Your task to perform on an android device: turn notification dots off Image 0: 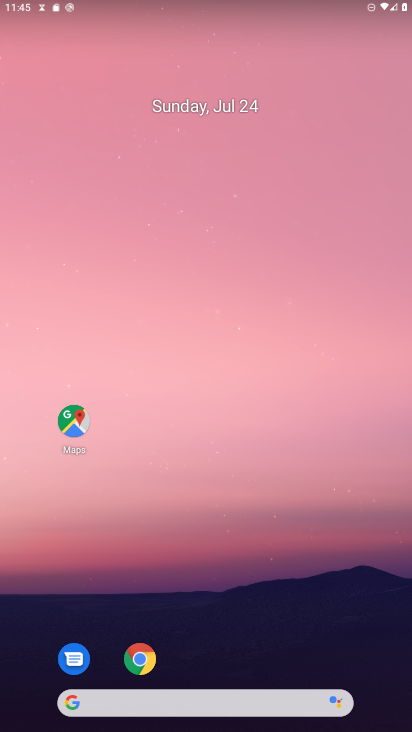
Step 0: drag from (248, 652) to (248, 44)
Your task to perform on an android device: turn notification dots off Image 1: 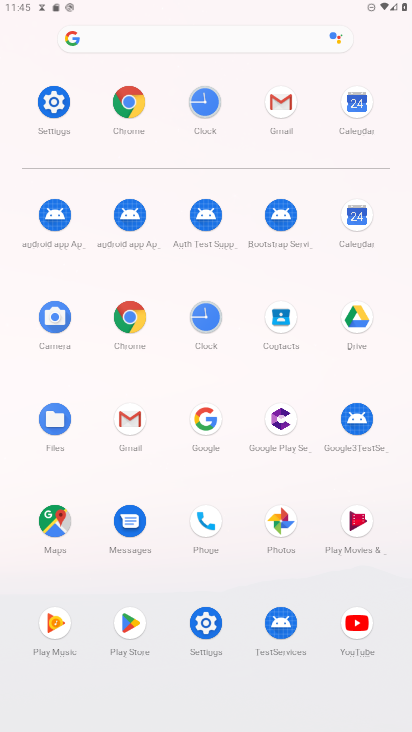
Step 1: click (46, 129)
Your task to perform on an android device: turn notification dots off Image 2: 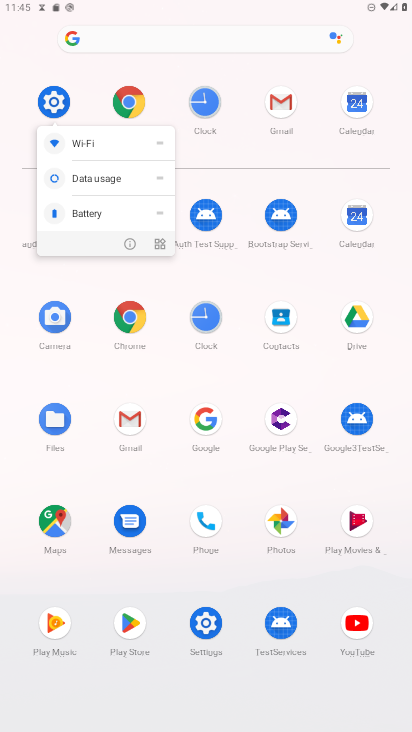
Step 2: click (52, 108)
Your task to perform on an android device: turn notification dots off Image 3: 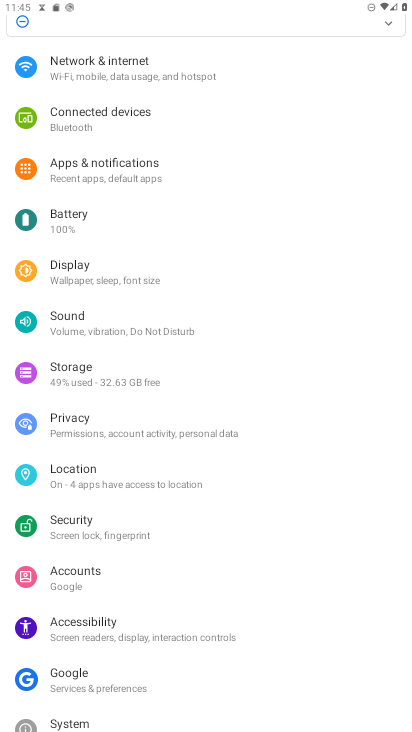
Step 3: click (52, 108)
Your task to perform on an android device: turn notification dots off Image 4: 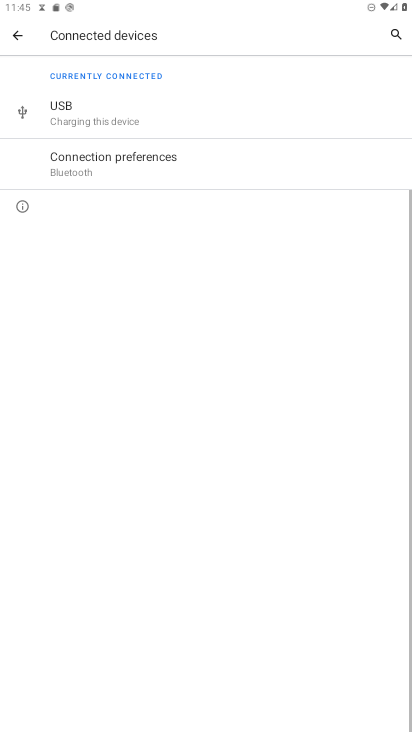
Step 4: click (24, 32)
Your task to perform on an android device: turn notification dots off Image 5: 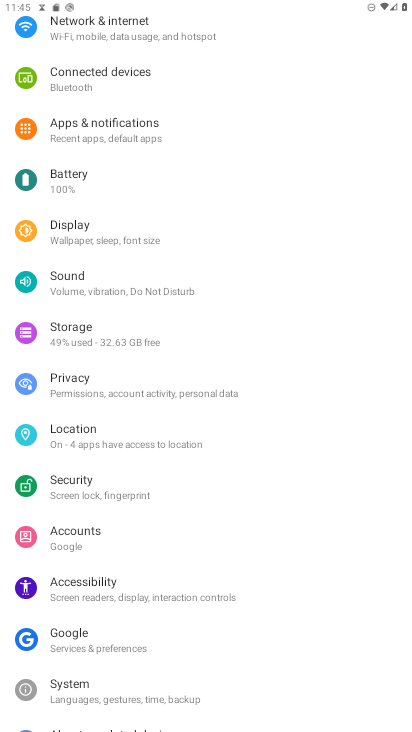
Step 5: drag from (182, 47) to (179, 388)
Your task to perform on an android device: turn notification dots off Image 6: 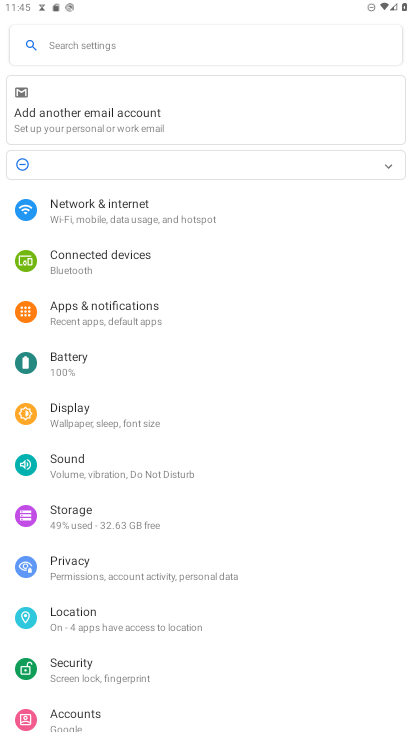
Step 6: click (117, 32)
Your task to perform on an android device: turn notification dots off Image 7: 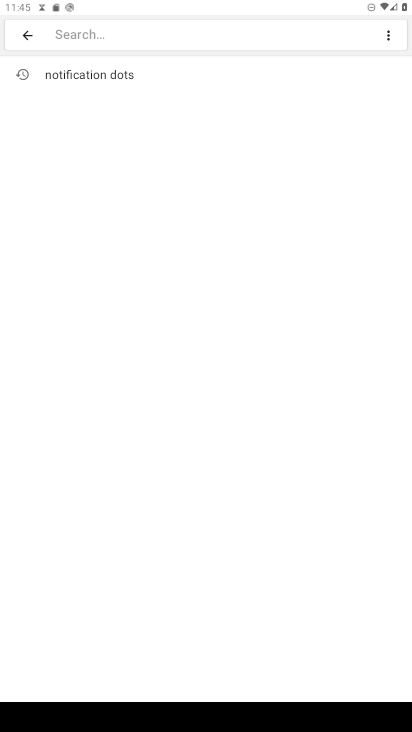
Step 7: click (103, 68)
Your task to perform on an android device: turn notification dots off Image 8: 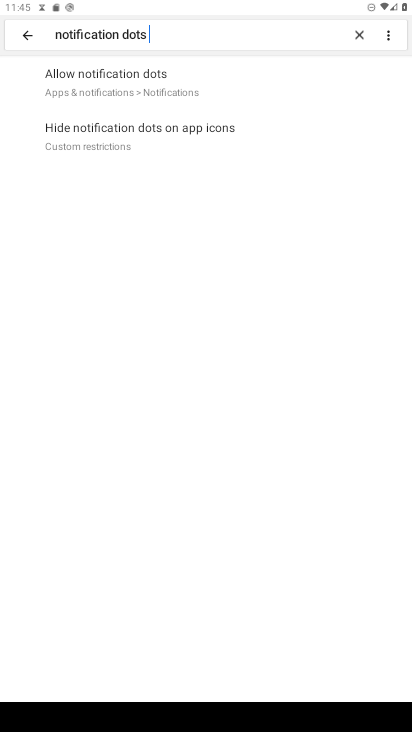
Step 8: click (122, 78)
Your task to perform on an android device: turn notification dots off Image 9: 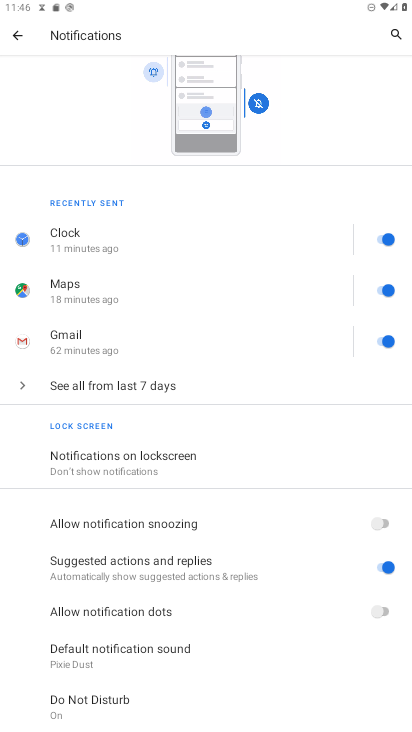
Step 9: task complete